Your task to perform on an android device: turn off airplane mode Image 0: 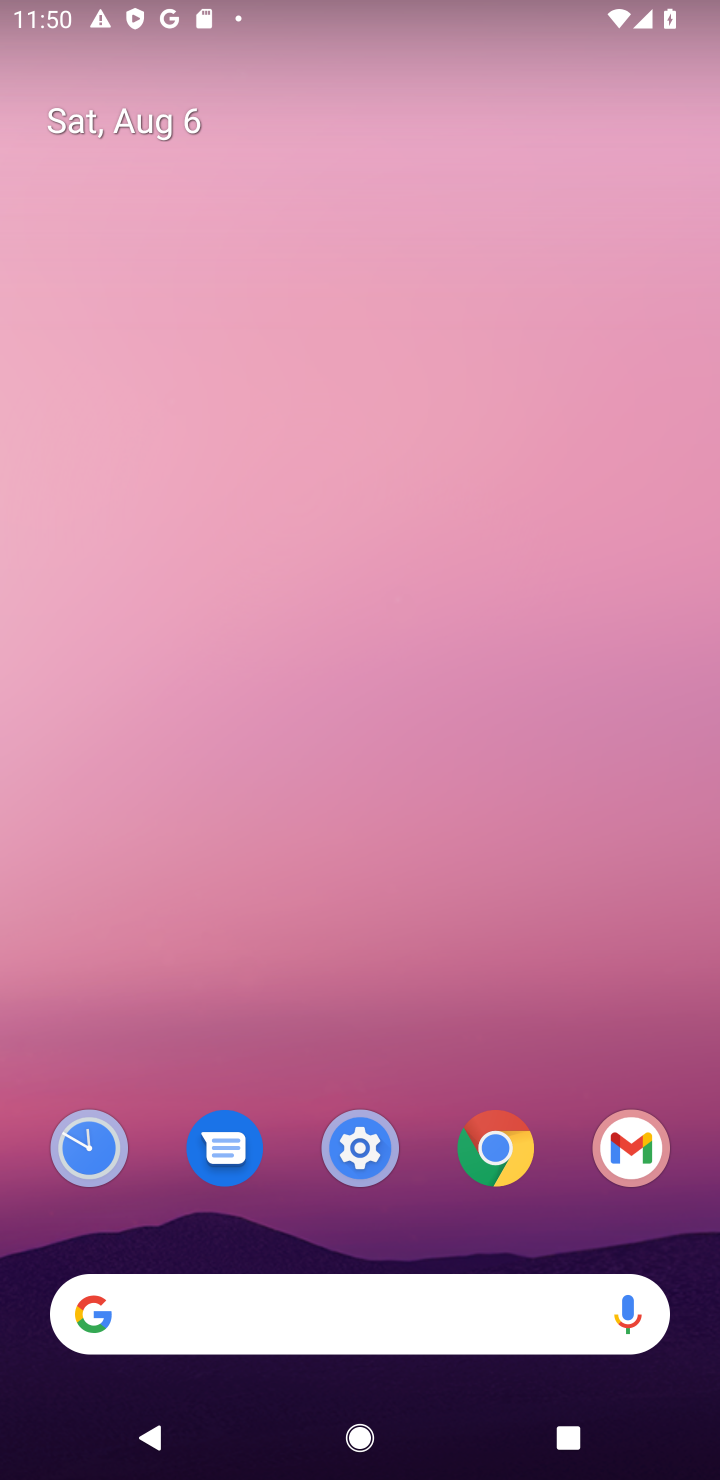
Step 0: click (352, 1137)
Your task to perform on an android device: turn off airplane mode Image 1: 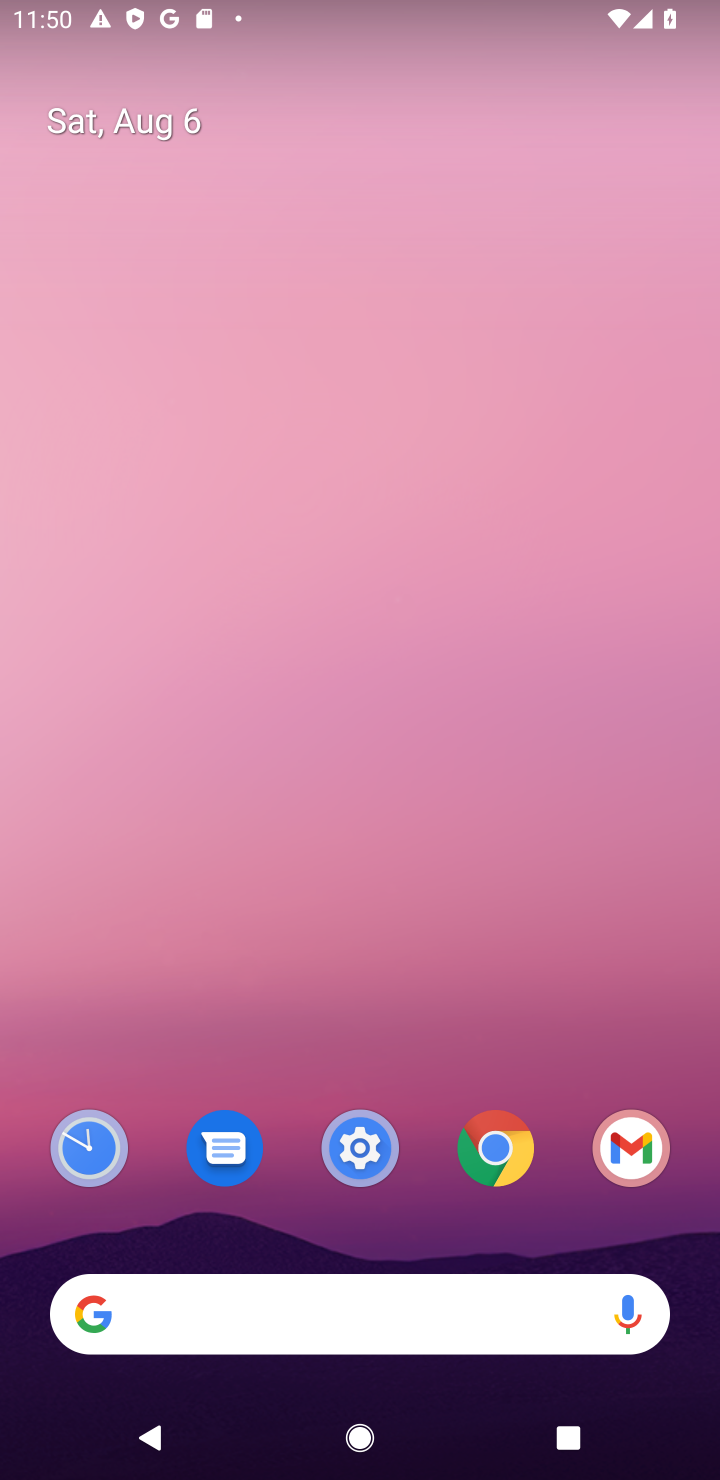
Step 1: click (355, 1142)
Your task to perform on an android device: turn off airplane mode Image 2: 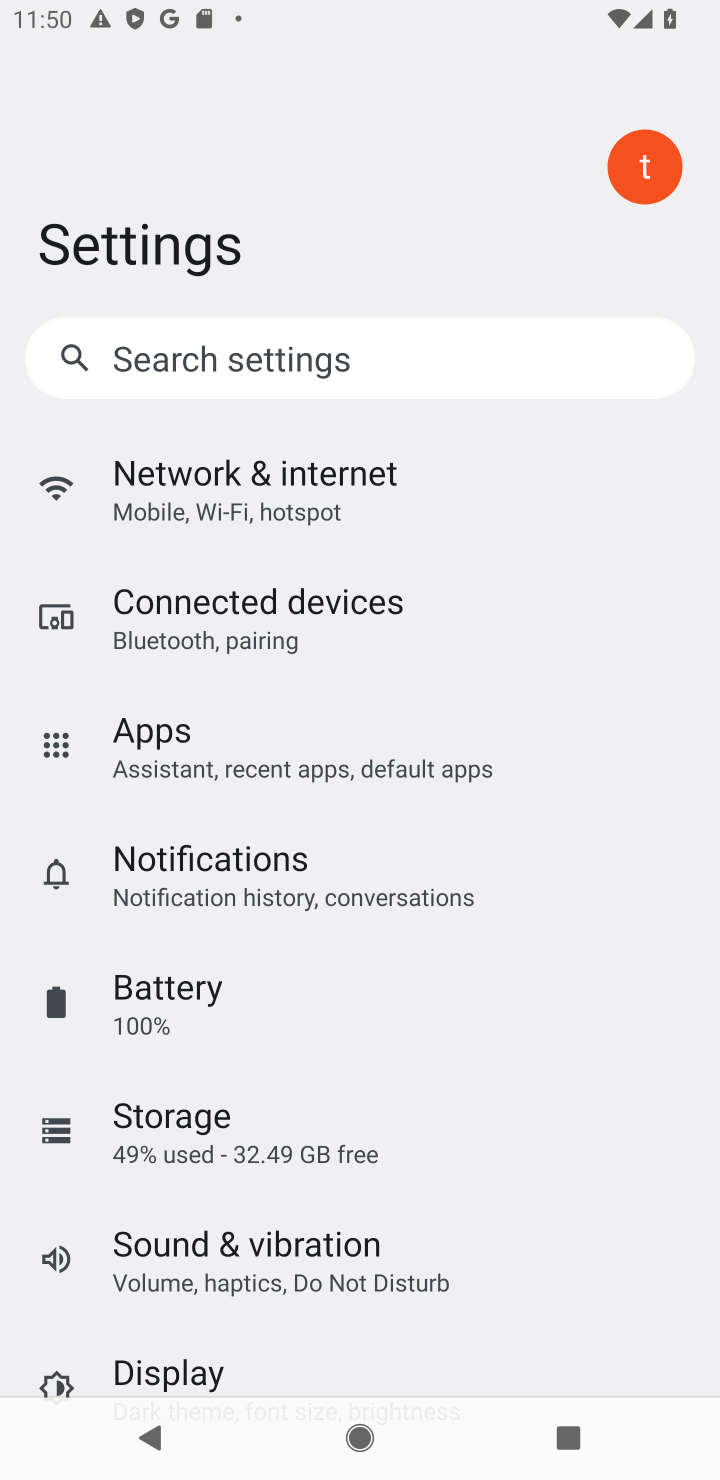
Step 2: click (277, 475)
Your task to perform on an android device: turn off airplane mode Image 3: 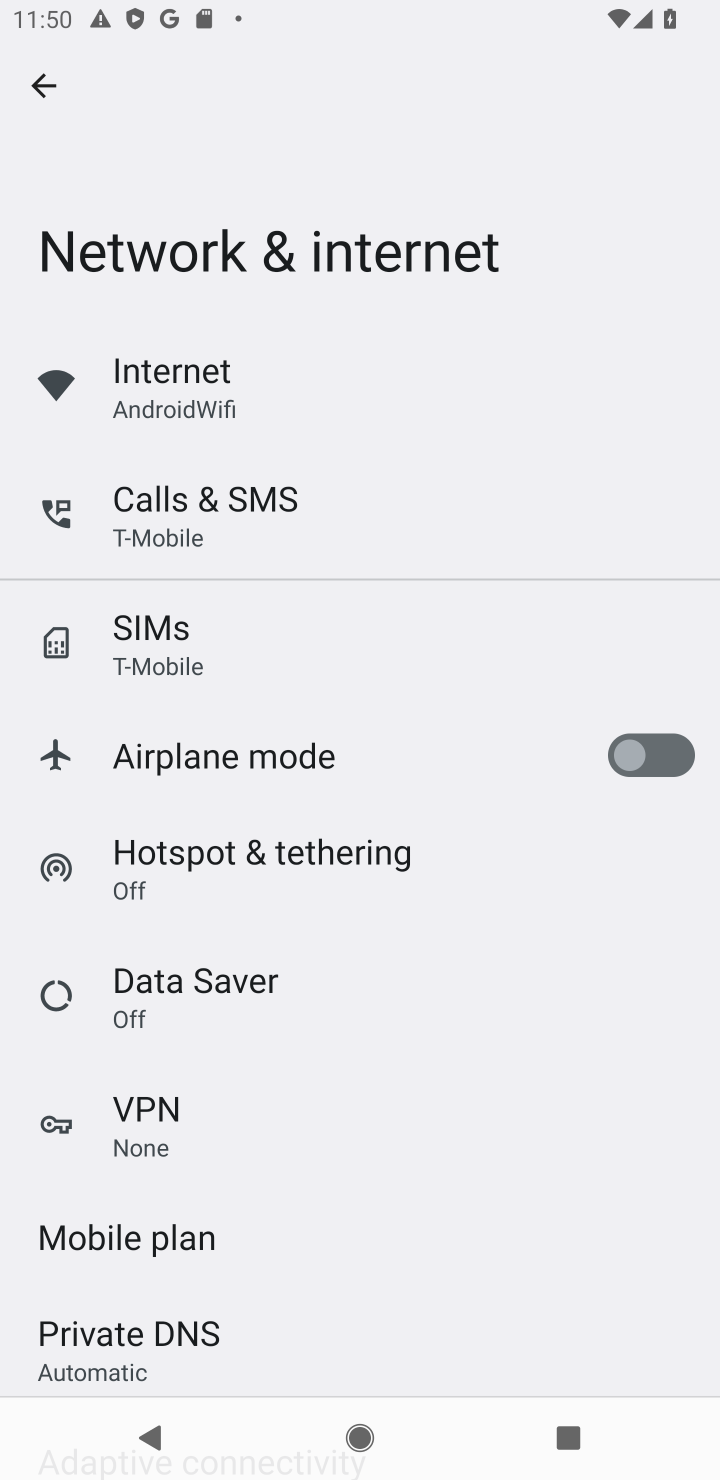
Step 3: task complete